Your task to perform on an android device: add a label to a message in the gmail app Image 0: 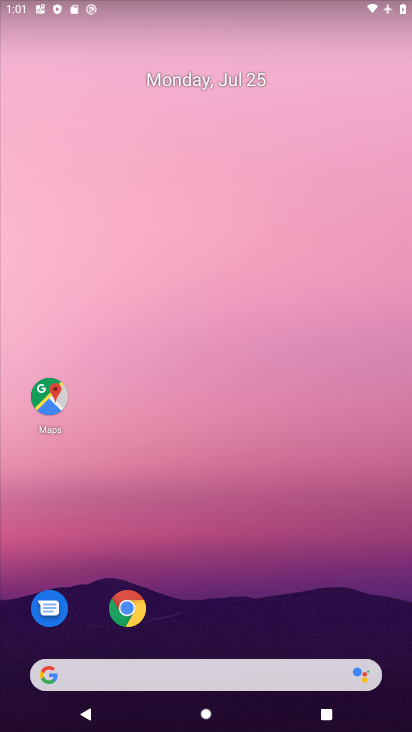
Step 0: drag from (229, 653) to (378, 181)
Your task to perform on an android device: add a label to a message in the gmail app Image 1: 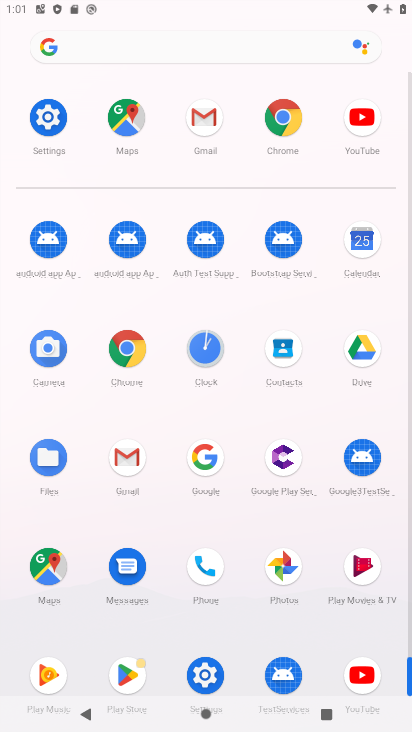
Step 1: click (125, 468)
Your task to perform on an android device: add a label to a message in the gmail app Image 2: 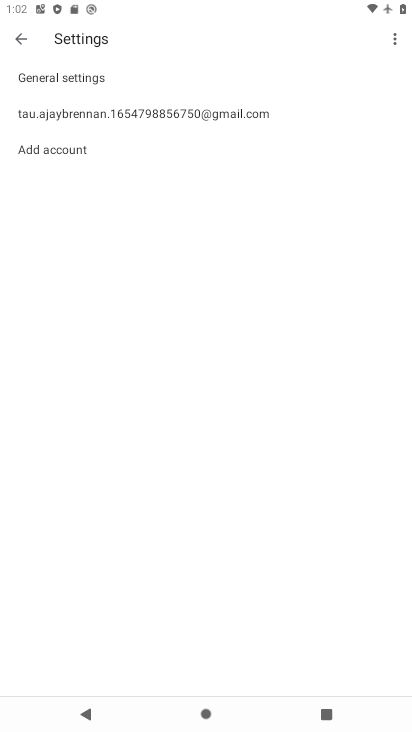
Step 2: task complete